Your task to perform on an android device: Open the calendar app, open the side menu, and click the "Day" option Image 0: 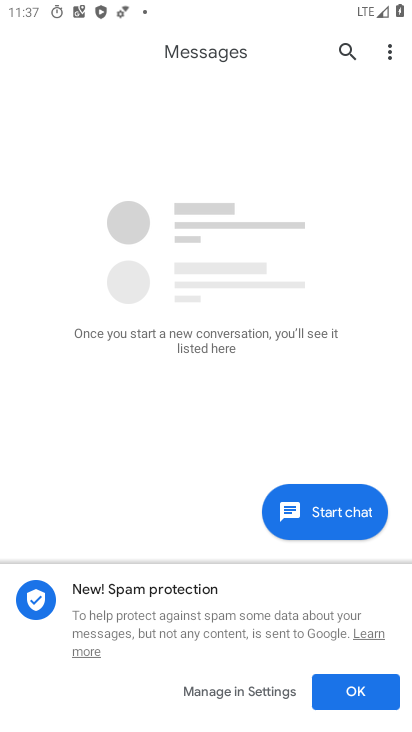
Step 0: press home button
Your task to perform on an android device: Open the calendar app, open the side menu, and click the "Day" option Image 1: 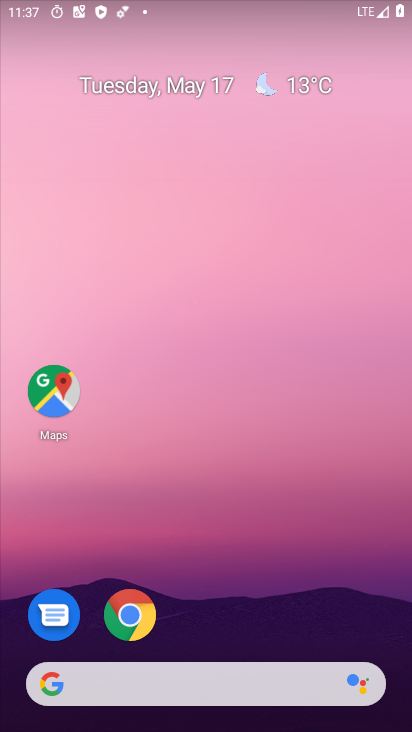
Step 1: drag from (159, 677) to (276, 79)
Your task to perform on an android device: Open the calendar app, open the side menu, and click the "Day" option Image 2: 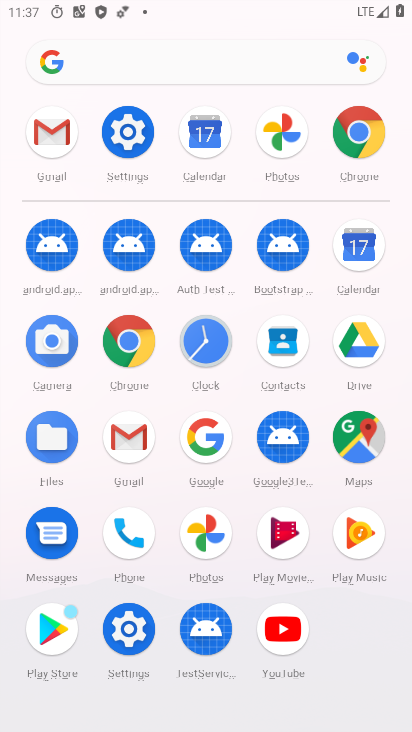
Step 2: click (363, 249)
Your task to perform on an android device: Open the calendar app, open the side menu, and click the "Day" option Image 3: 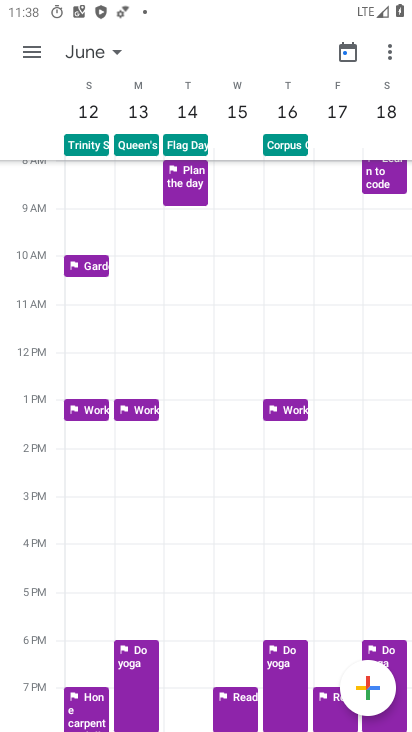
Step 3: click (78, 50)
Your task to perform on an android device: Open the calendar app, open the side menu, and click the "Day" option Image 4: 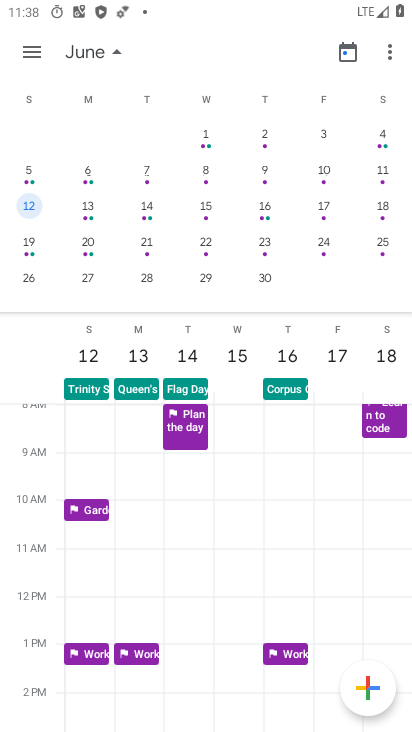
Step 4: drag from (96, 241) to (366, 209)
Your task to perform on an android device: Open the calendar app, open the side menu, and click the "Day" option Image 5: 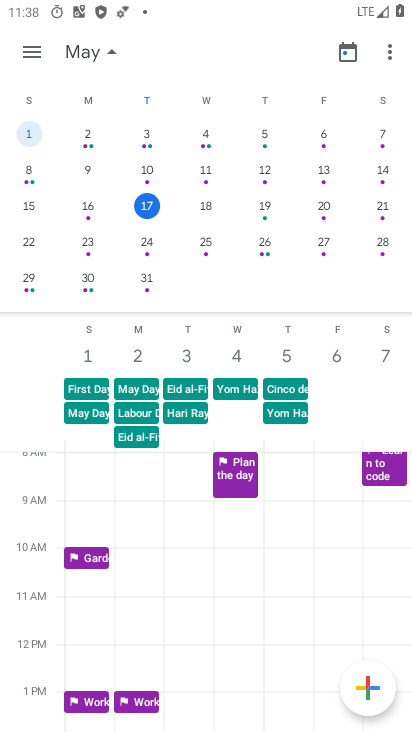
Step 5: click (150, 206)
Your task to perform on an android device: Open the calendar app, open the side menu, and click the "Day" option Image 6: 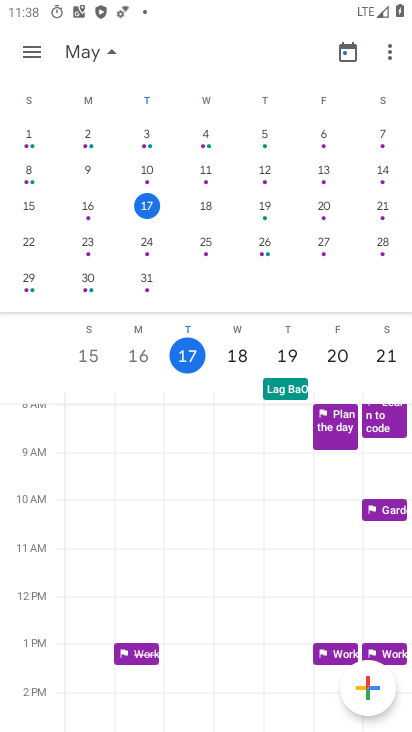
Step 6: click (35, 53)
Your task to perform on an android device: Open the calendar app, open the side menu, and click the "Day" option Image 7: 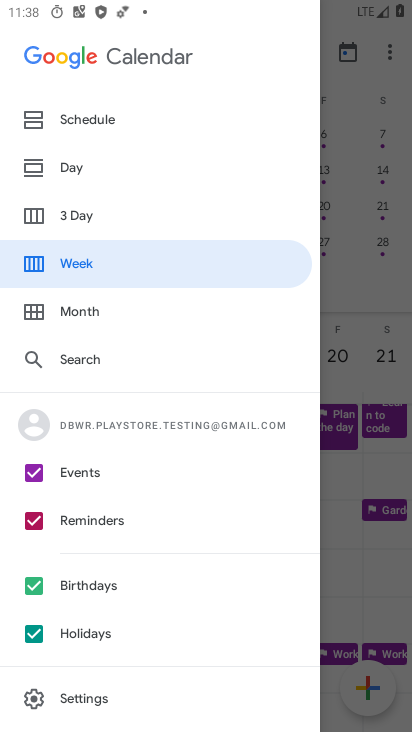
Step 7: click (78, 164)
Your task to perform on an android device: Open the calendar app, open the side menu, and click the "Day" option Image 8: 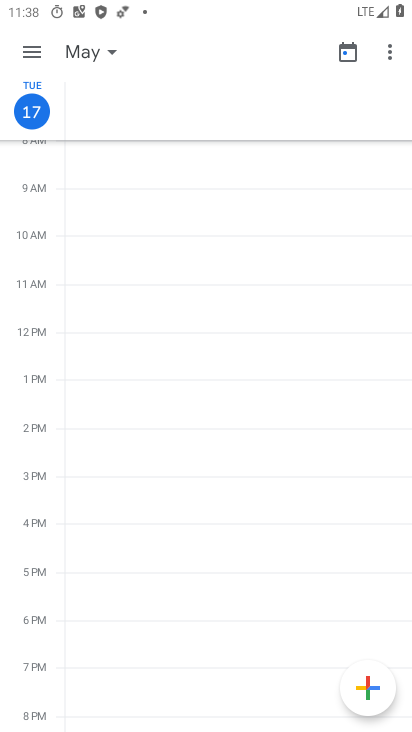
Step 8: task complete